Your task to perform on an android device: Open calendar and show me the second week of next month Image 0: 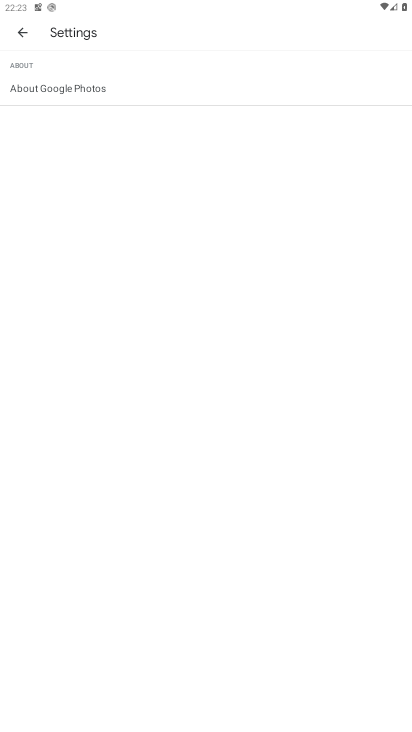
Step 0: press home button
Your task to perform on an android device: Open calendar and show me the second week of next month Image 1: 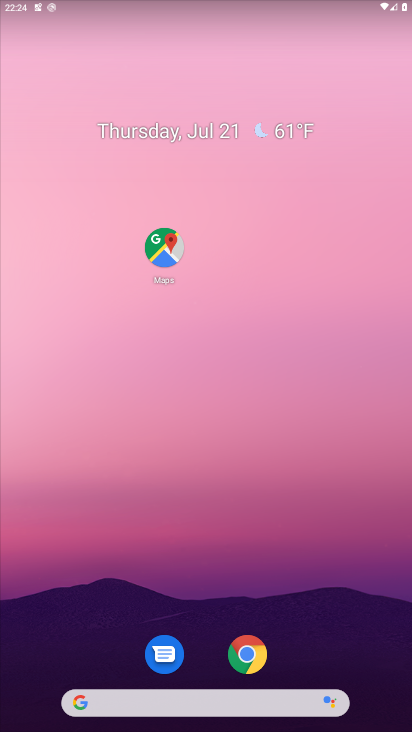
Step 1: drag from (41, 683) to (298, 26)
Your task to perform on an android device: Open calendar and show me the second week of next month Image 2: 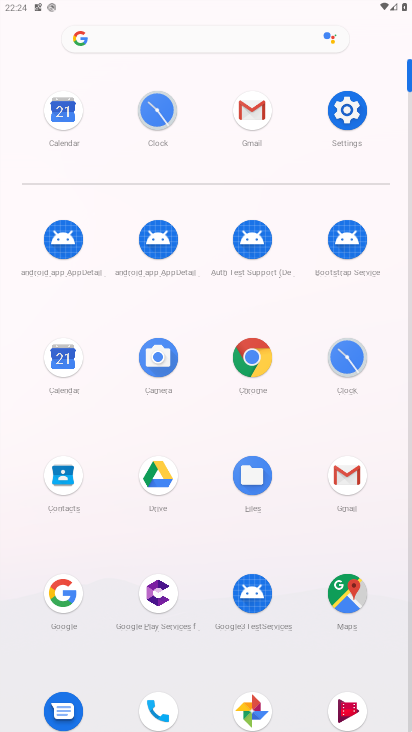
Step 2: click (72, 375)
Your task to perform on an android device: Open calendar and show me the second week of next month Image 3: 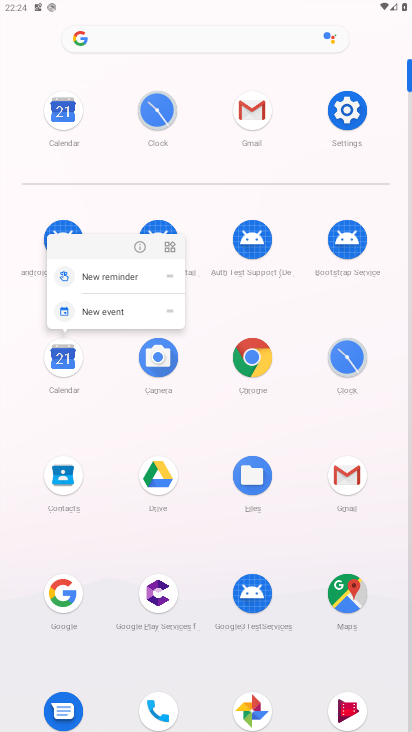
Step 3: click (63, 351)
Your task to perform on an android device: Open calendar and show me the second week of next month Image 4: 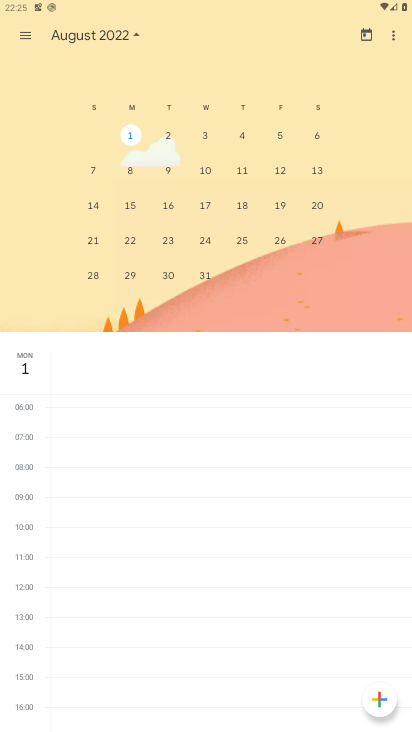
Step 4: click (133, 166)
Your task to perform on an android device: Open calendar and show me the second week of next month Image 5: 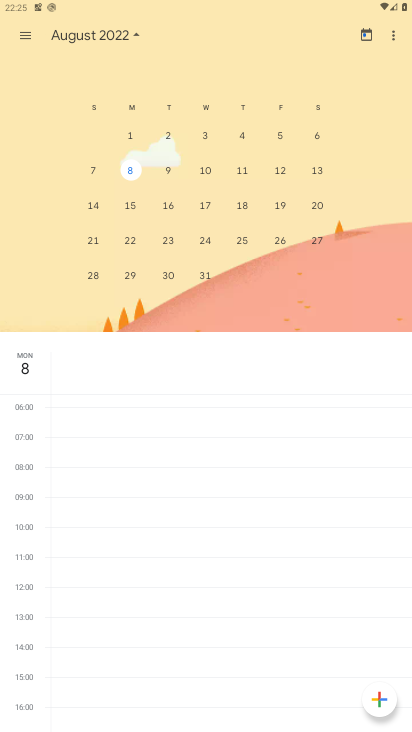
Step 5: task complete